Your task to perform on an android device: turn off wifi Image 0: 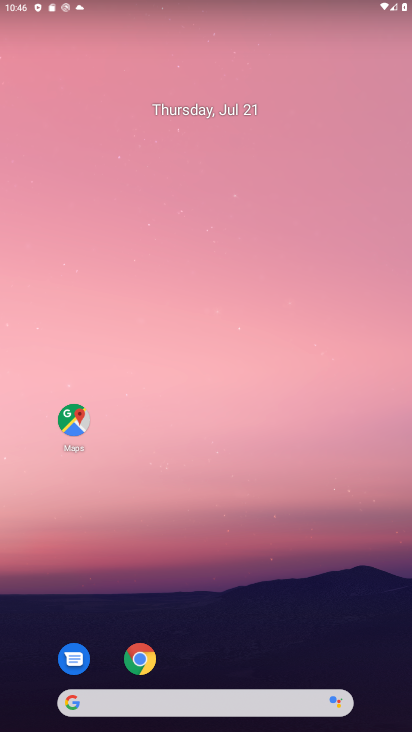
Step 0: drag from (240, 674) to (249, 33)
Your task to perform on an android device: turn off wifi Image 1: 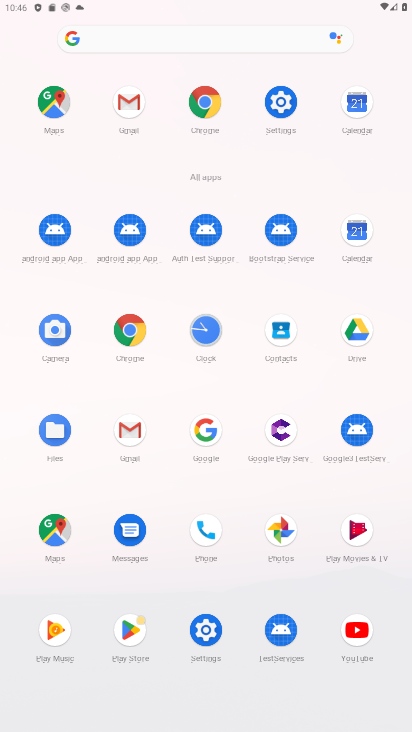
Step 1: click (274, 82)
Your task to perform on an android device: turn off wifi Image 2: 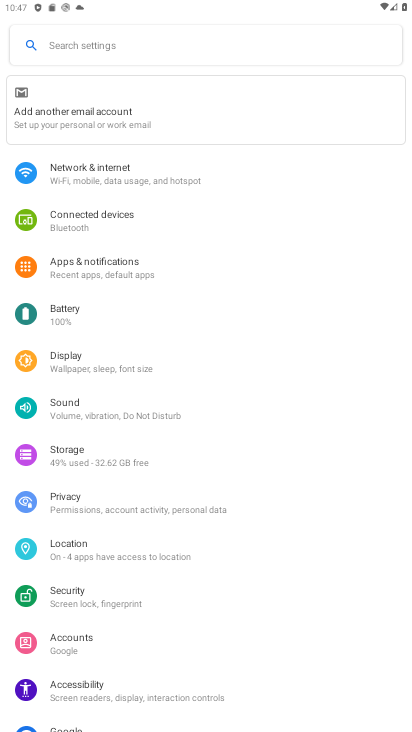
Step 2: click (200, 187)
Your task to perform on an android device: turn off wifi Image 3: 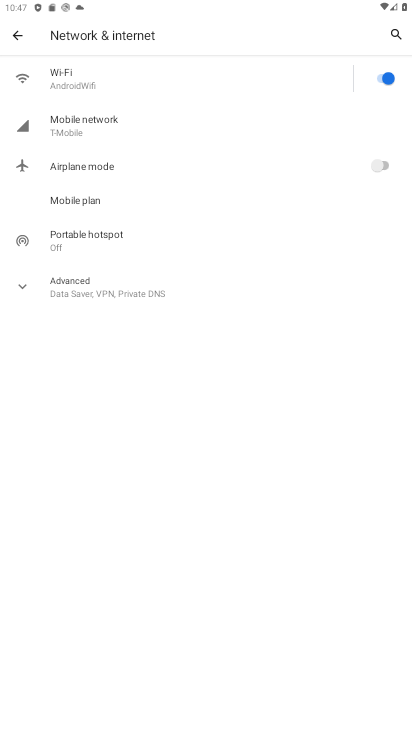
Step 3: click (146, 80)
Your task to perform on an android device: turn off wifi Image 4: 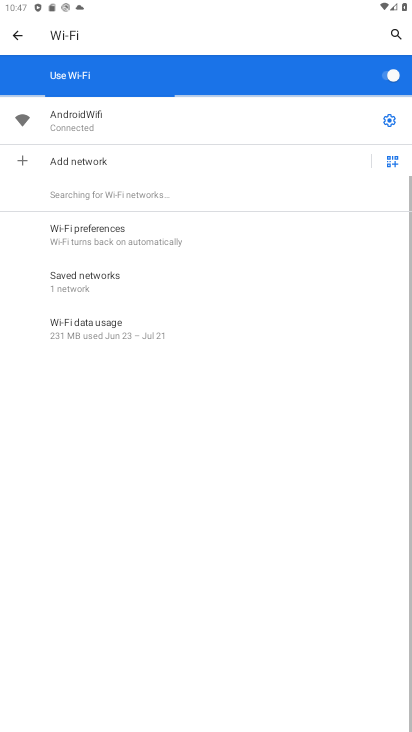
Step 4: task complete